Your task to perform on an android device: Go to location settings Image 0: 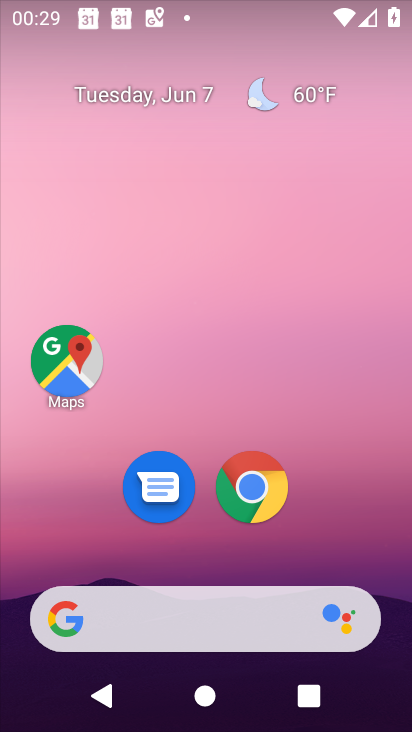
Step 0: drag from (344, 556) to (278, 272)
Your task to perform on an android device: Go to location settings Image 1: 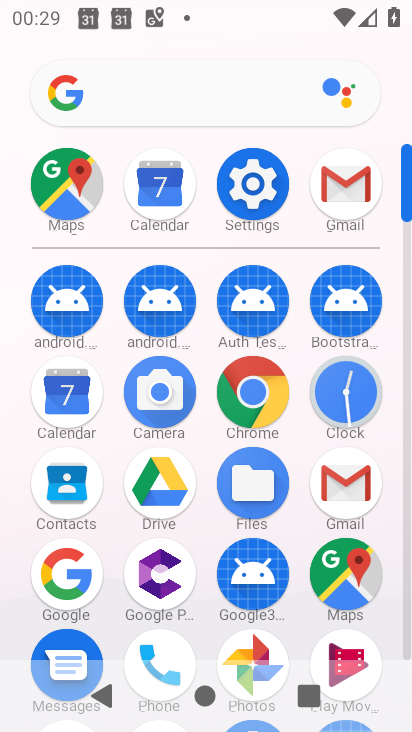
Step 1: click (244, 177)
Your task to perform on an android device: Go to location settings Image 2: 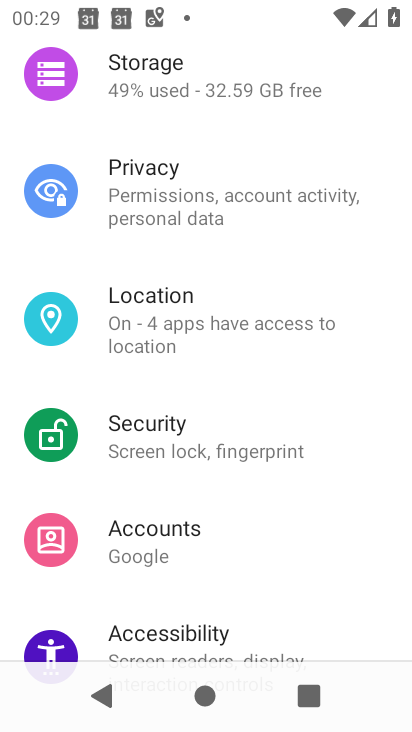
Step 2: click (208, 342)
Your task to perform on an android device: Go to location settings Image 3: 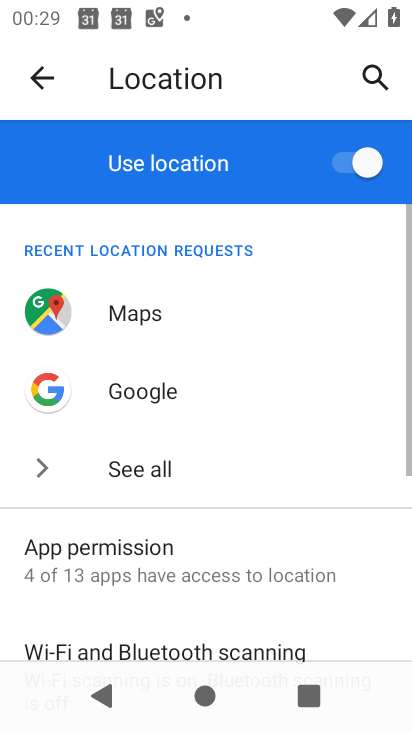
Step 3: task complete